Your task to perform on an android device: check battery use Image 0: 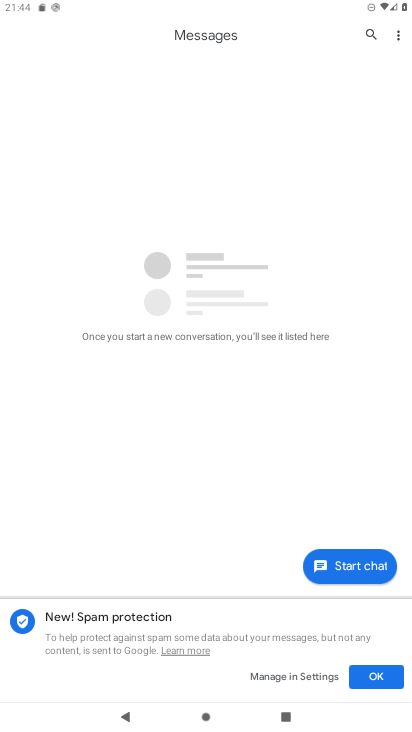
Step 0: press home button
Your task to perform on an android device: check battery use Image 1: 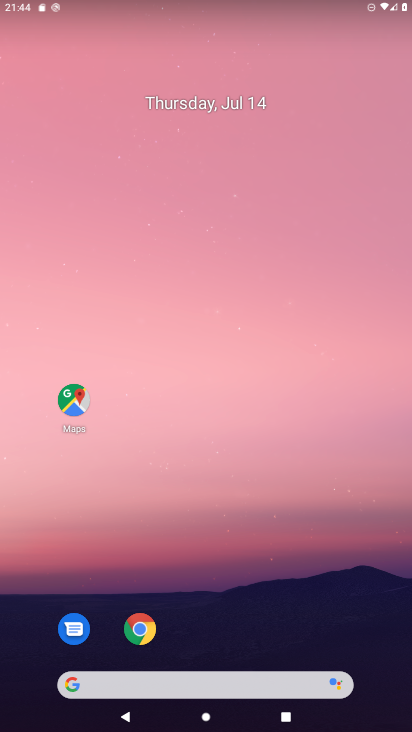
Step 1: drag from (259, 616) to (282, 237)
Your task to perform on an android device: check battery use Image 2: 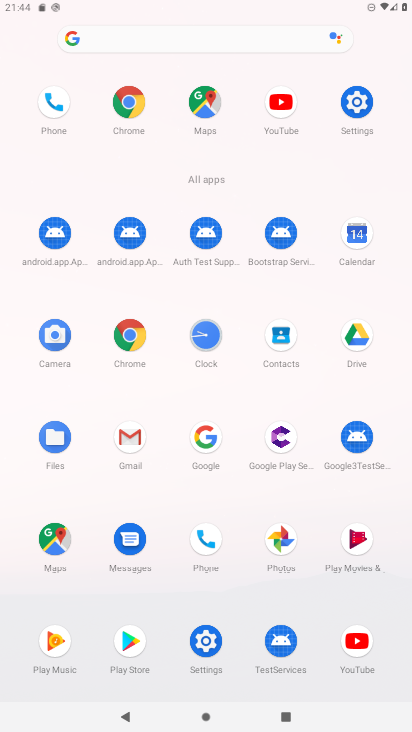
Step 2: click (347, 91)
Your task to perform on an android device: check battery use Image 3: 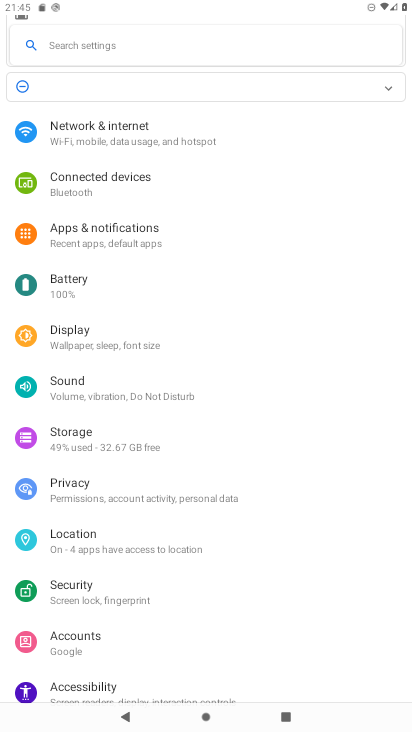
Step 3: click (98, 286)
Your task to perform on an android device: check battery use Image 4: 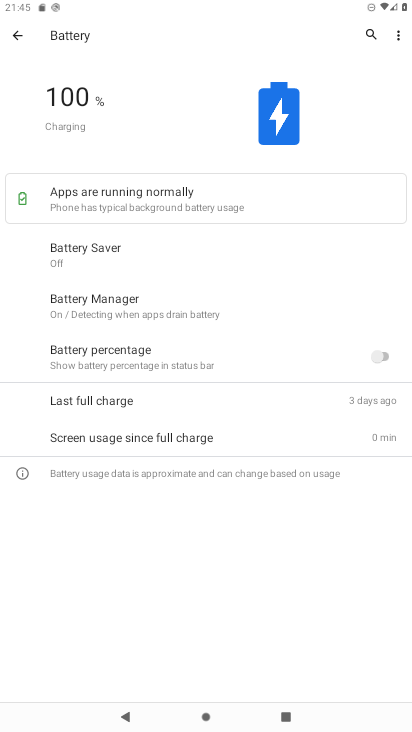
Step 4: task complete